Your task to perform on an android device: Search for good Chinese restaurants Image 0: 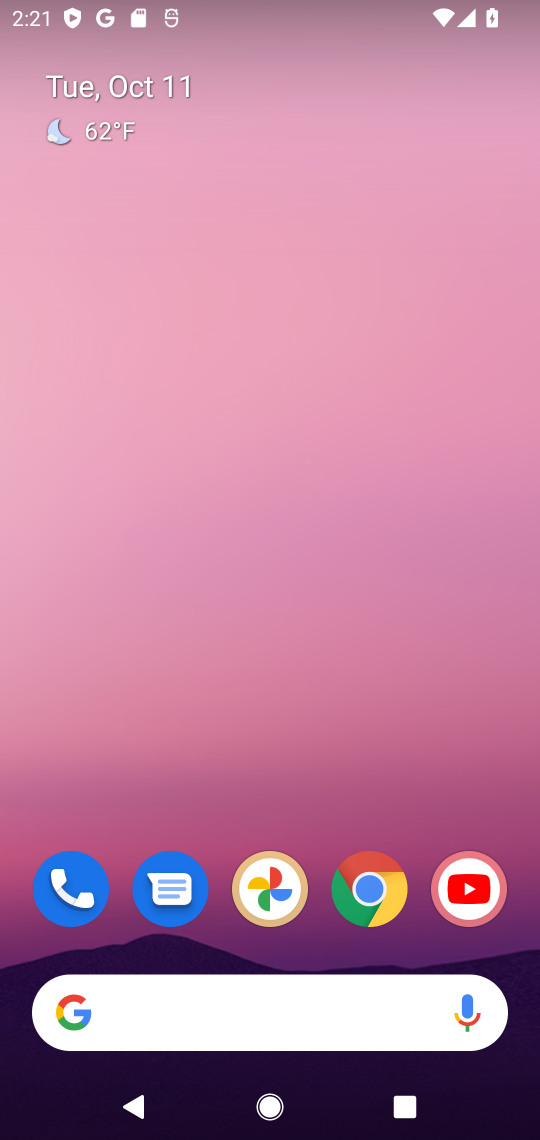
Step 0: drag from (203, 951) to (357, 306)
Your task to perform on an android device: Search for good Chinese restaurants Image 1: 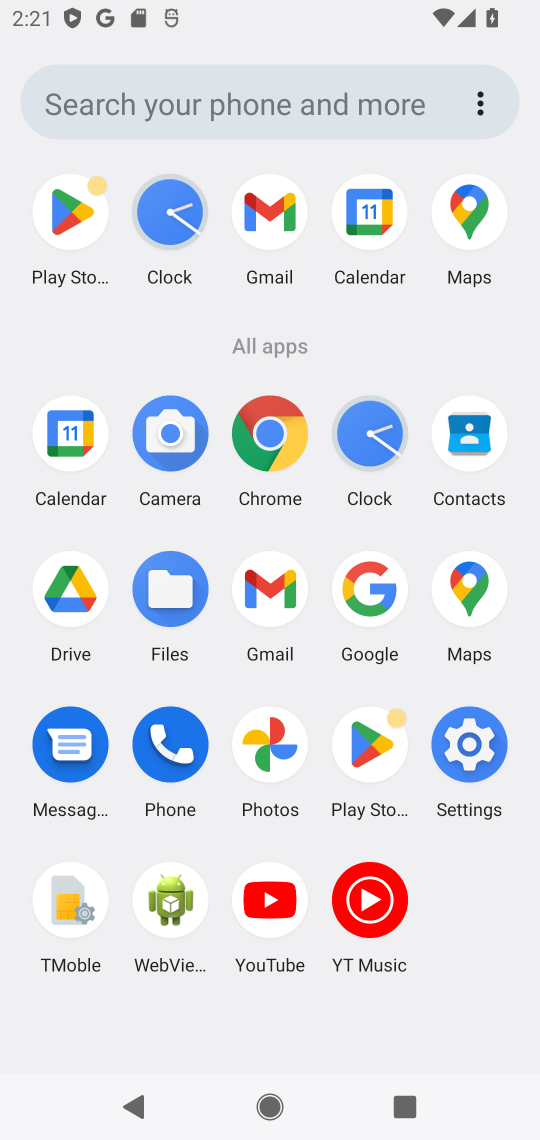
Step 1: click (358, 585)
Your task to perform on an android device: Search for good Chinese restaurants Image 2: 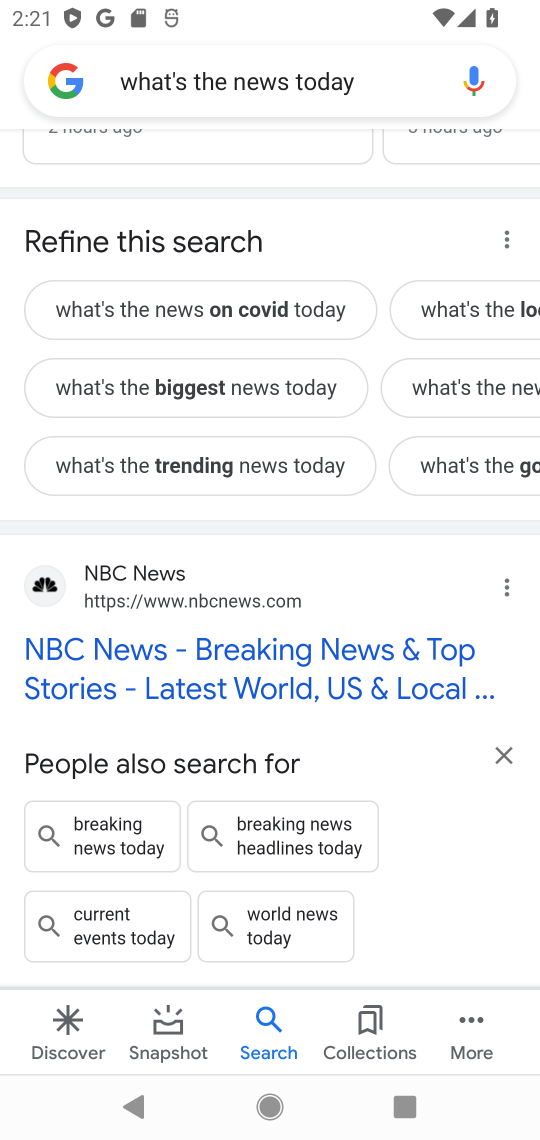
Step 2: click (270, 70)
Your task to perform on an android device: Search for good Chinese restaurants Image 3: 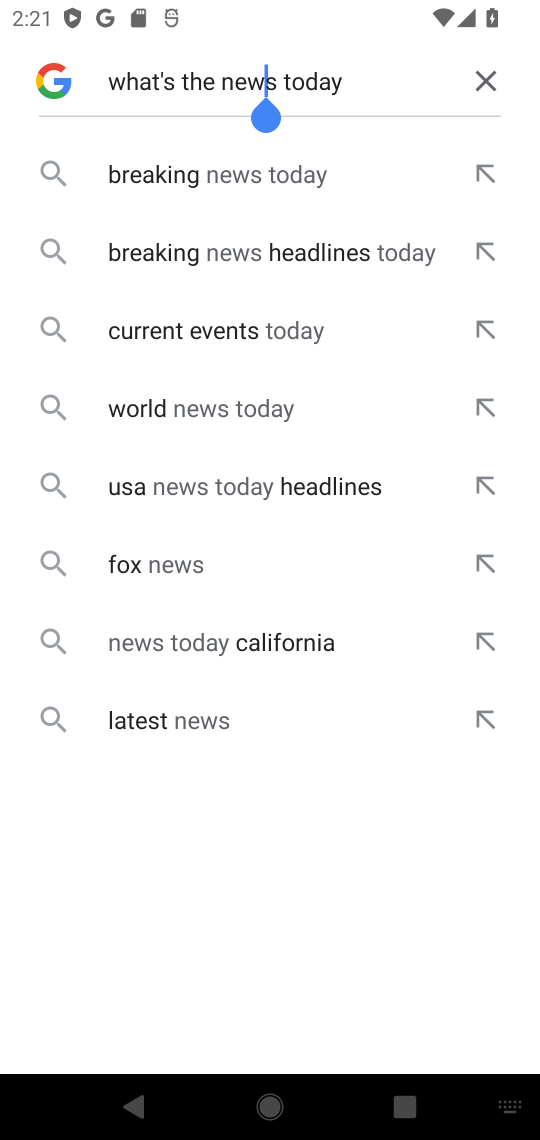
Step 3: click (482, 80)
Your task to perform on an android device: Search for good Chinese restaurants Image 4: 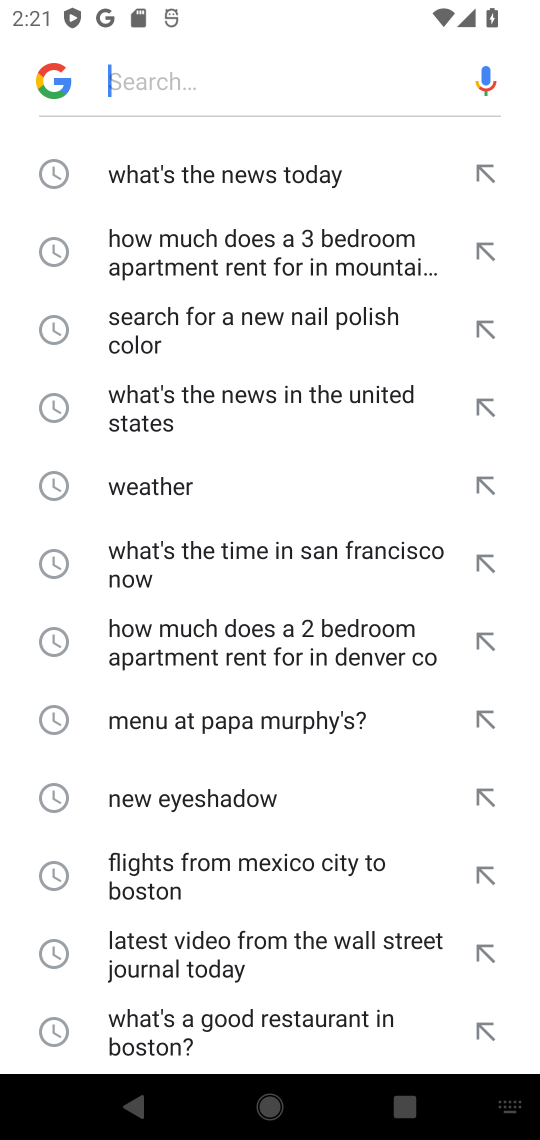
Step 4: click (210, 88)
Your task to perform on an android device: Search for good Chinese restaurants Image 5: 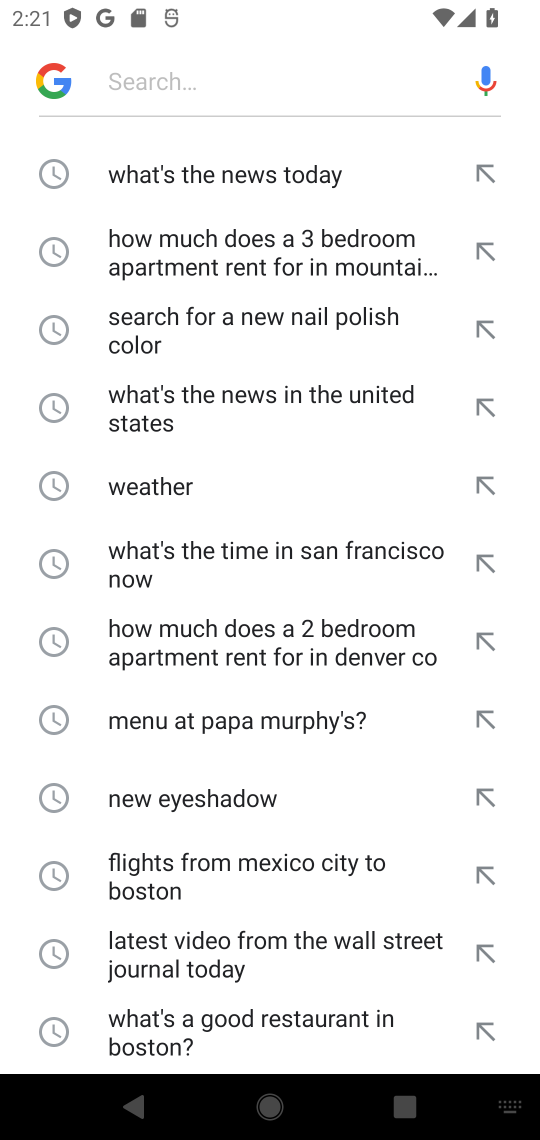
Step 5: type "Search for good Chinese restaurants "
Your task to perform on an android device: Search for good Chinese restaurants Image 6: 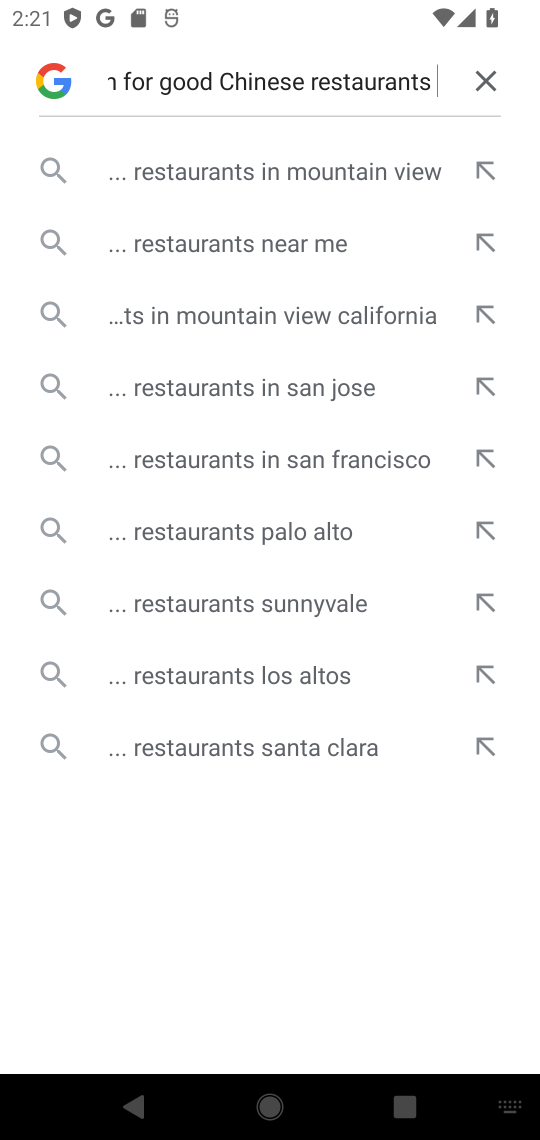
Step 6: click (169, 239)
Your task to perform on an android device: Search for good Chinese restaurants Image 7: 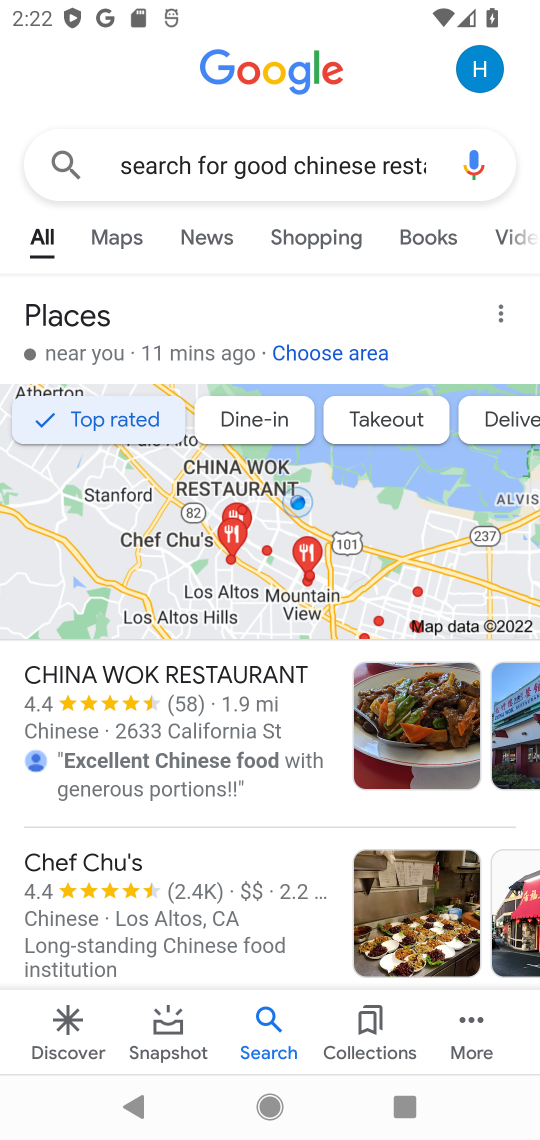
Step 7: task complete